Your task to perform on an android device: turn on the 24-hour format for clock Image 0: 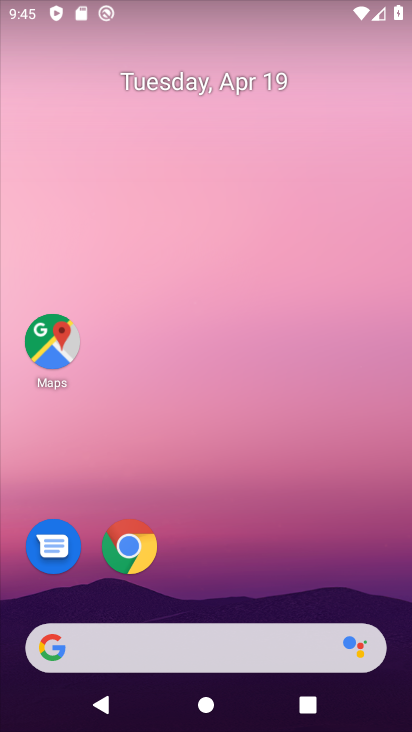
Step 0: drag from (231, 583) to (200, 14)
Your task to perform on an android device: turn on the 24-hour format for clock Image 1: 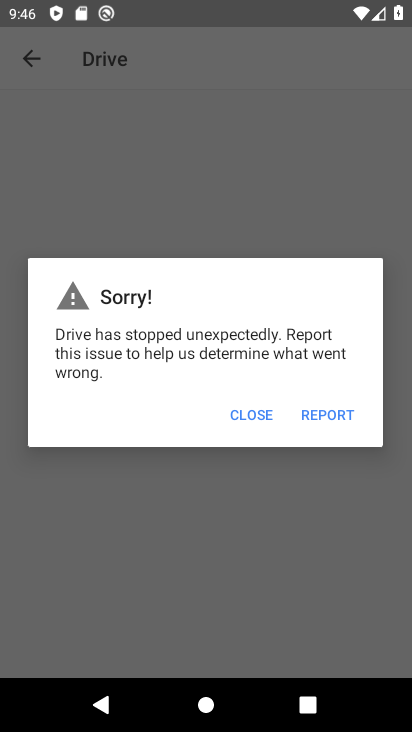
Step 1: press home button
Your task to perform on an android device: turn on the 24-hour format for clock Image 2: 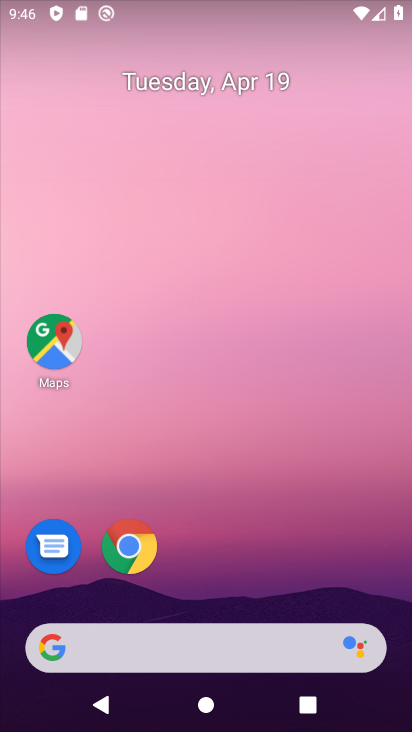
Step 2: drag from (211, 617) to (190, 22)
Your task to perform on an android device: turn on the 24-hour format for clock Image 3: 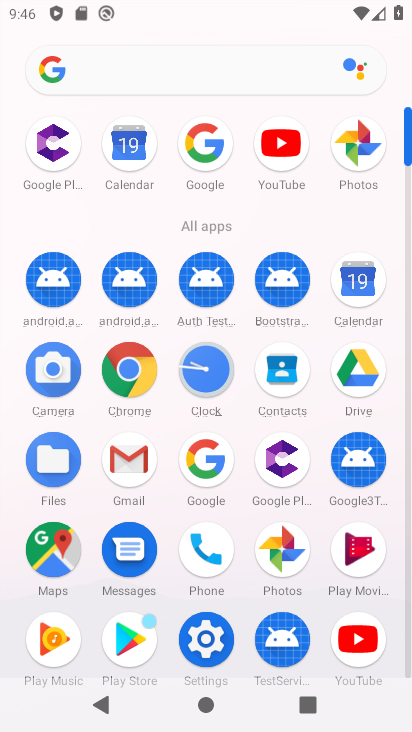
Step 3: click (212, 378)
Your task to perform on an android device: turn on the 24-hour format for clock Image 4: 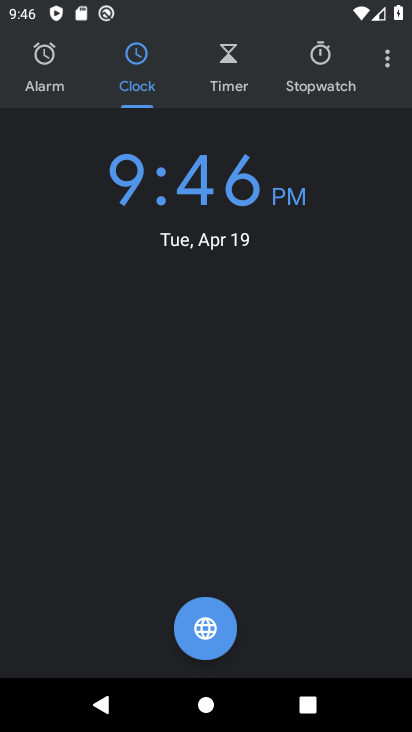
Step 4: click (390, 60)
Your task to perform on an android device: turn on the 24-hour format for clock Image 5: 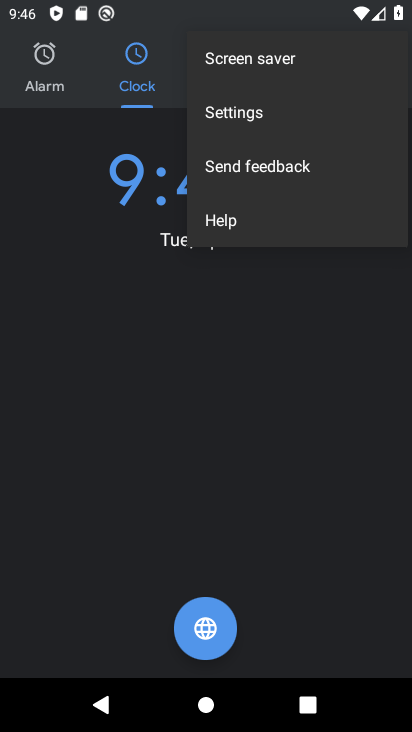
Step 5: click (240, 121)
Your task to perform on an android device: turn on the 24-hour format for clock Image 6: 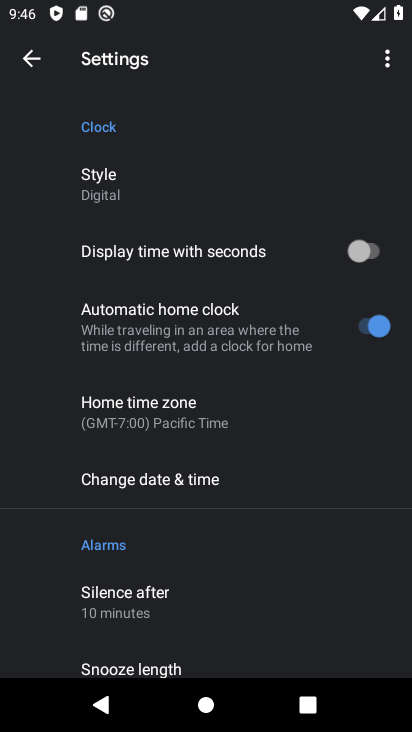
Step 6: click (208, 490)
Your task to perform on an android device: turn on the 24-hour format for clock Image 7: 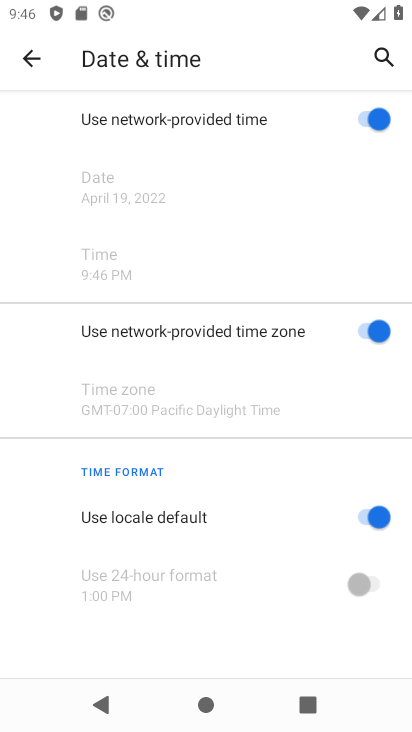
Step 7: drag from (228, 535) to (219, 328)
Your task to perform on an android device: turn on the 24-hour format for clock Image 8: 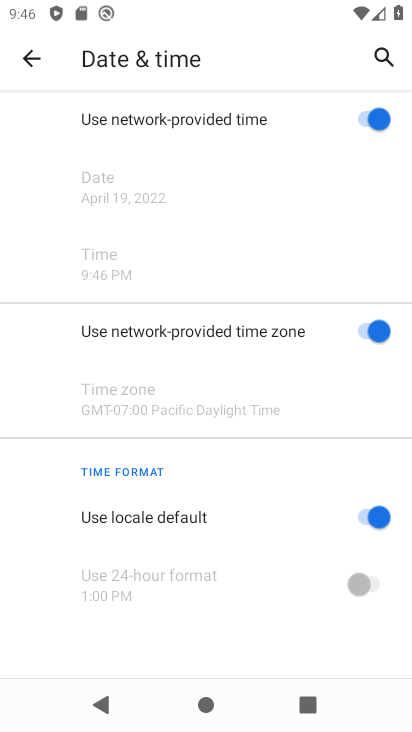
Step 8: click (368, 515)
Your task to perform on an android device: turn on the 24-hour format for clock Image 9: 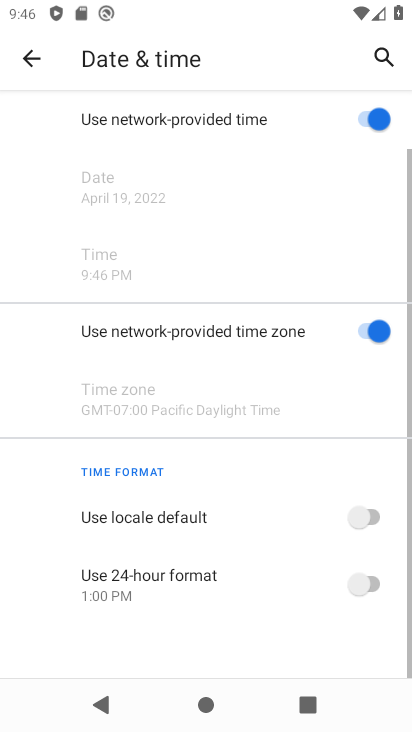
Step 9: click (364, 573)
Your task to perform on an android device: turn on the 24-hour format for clock Image 10: 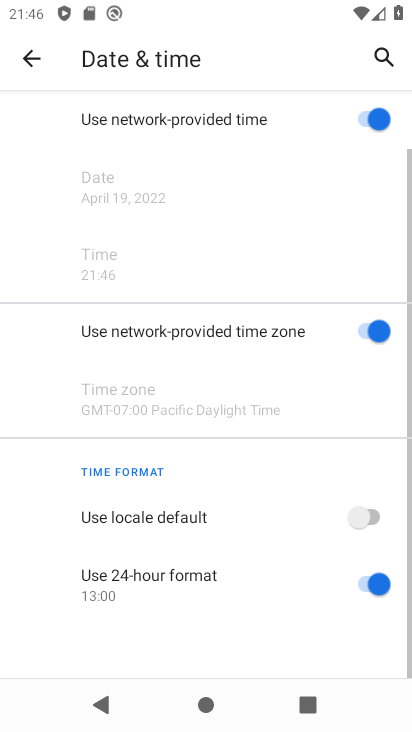
Step 10: task complete